Your task to perform on an android device: View the shopping cart on costco. Search for dell xps on costco, select the first entry, and add it to the cart. Image 0: 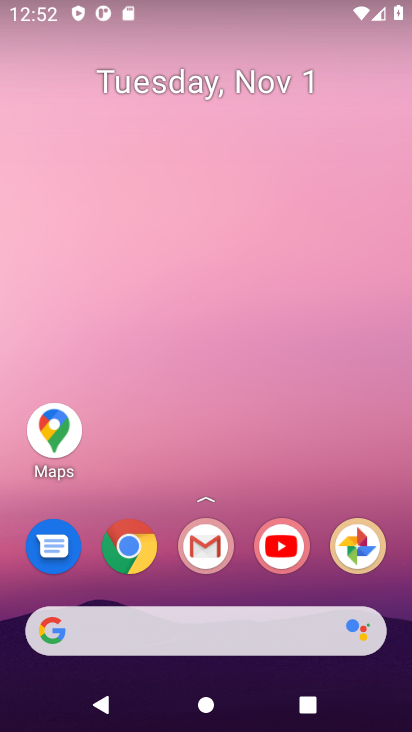
Step 0: task complete